Your task to perform on an android device: Search for "lenovo thinkpad" on ebay.com, select the first entry, add it to the cart, then select checkout. Image 0: 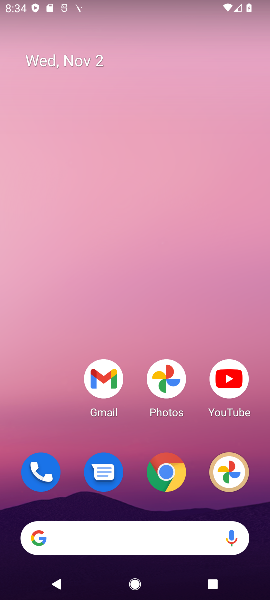
Step 0: task complete